Your task to perform on an android device: Open the phone app and click the voicemail tab. Image 0: 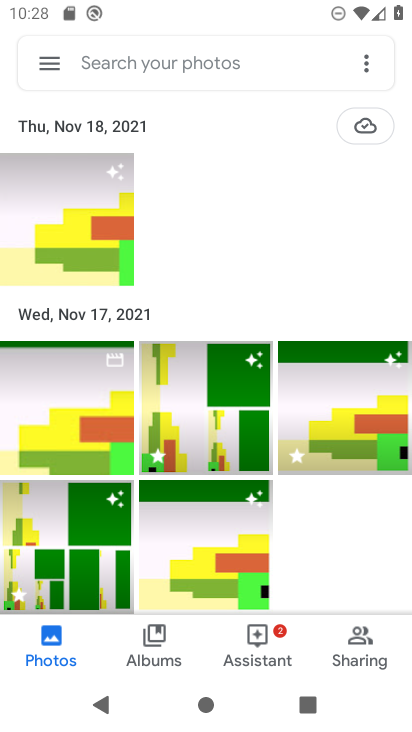
Step 0: press home button
Your task to perform on an android device: Open the phone app and click the voicemail tab. Image 1: 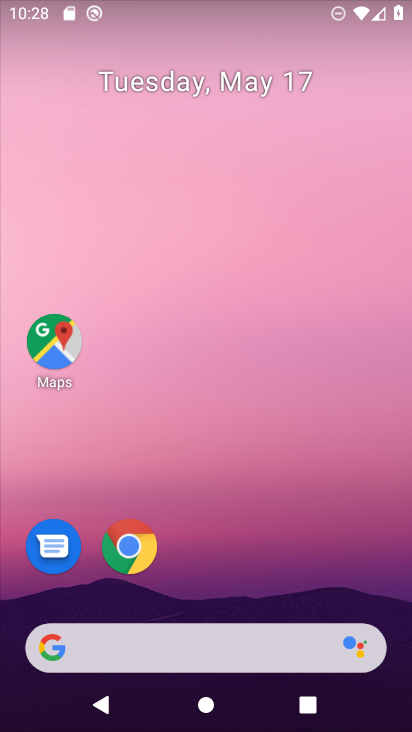
Step 1: drag from (262, 603) to (283, 30)
Your task to perform on an android device: Open the phone app and click the voicemail tab. Image 2: 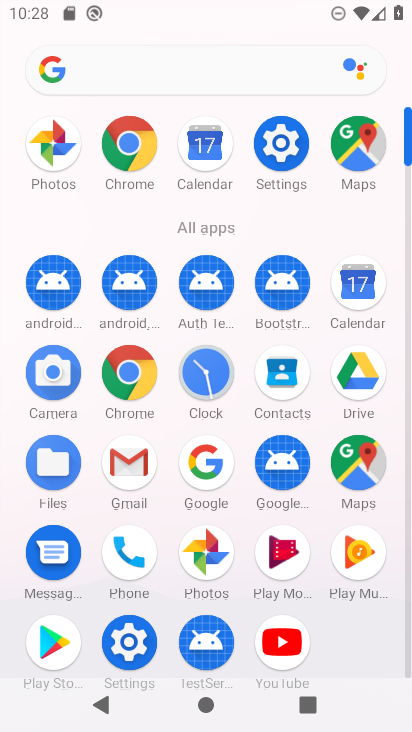
Step 2: click (128, 554)
Your task to perform on an android device: Open the phone app and click the voicemail tab. Image 3: 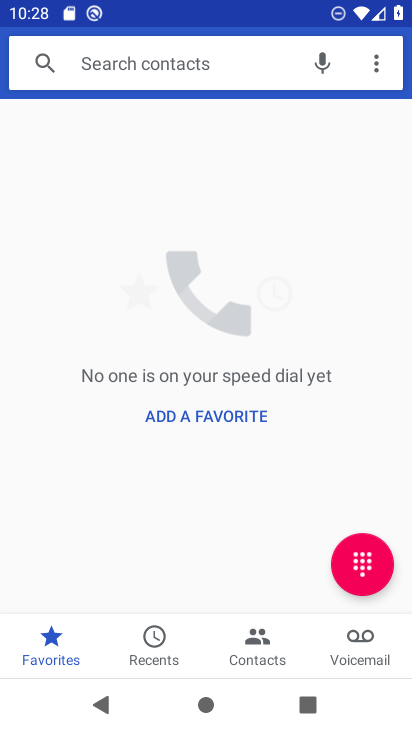
Step 3: click (354, 652)
Your task to perform on an android device: Open the phone app and click the voicemail tab. Image 4: 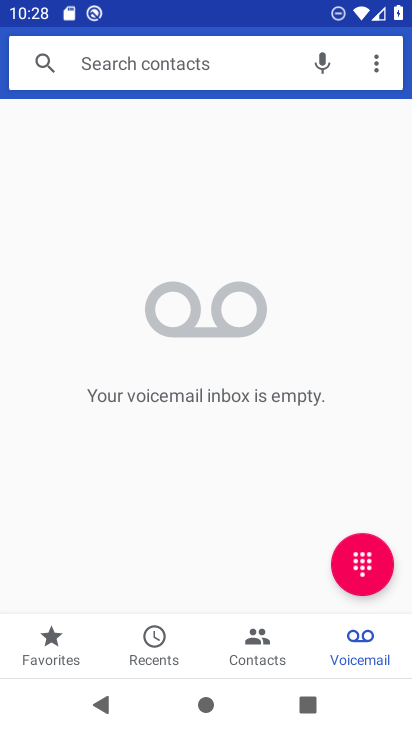
Step 4: task complete